Your task to perform on an android device: Clear the cart on ebay.com. Search for "jbl flip 4" on ebay.com, select the first entry, and add it to the cart. Image 0: 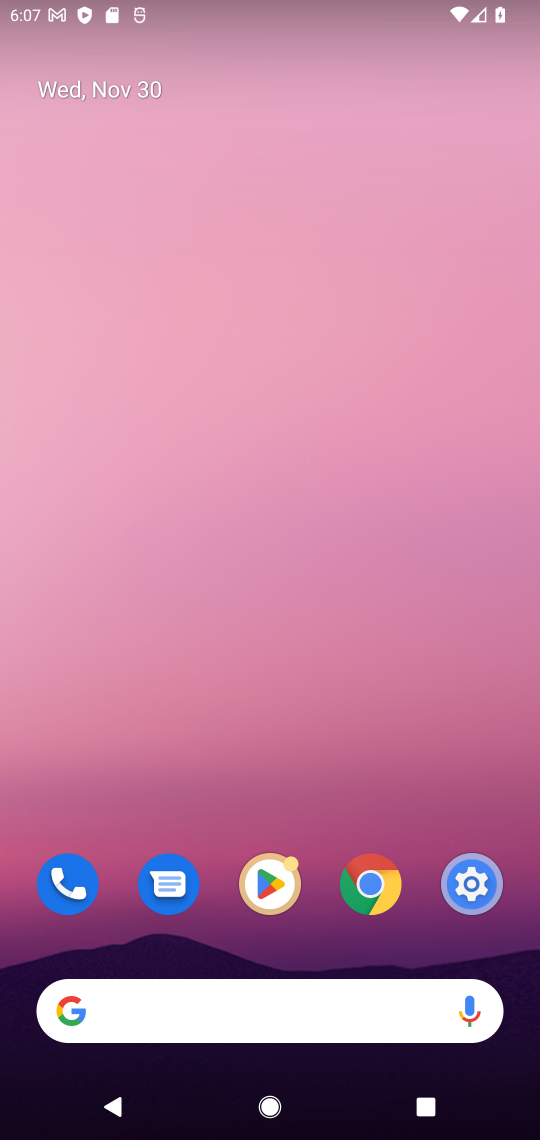
Step 0: click (377, 886)
Your task to perform on an android device: Clear the cart on ebay.com. Search for "jbl flip 4" on ebay.com, select the first entry, and add it to the cart. Image 1: 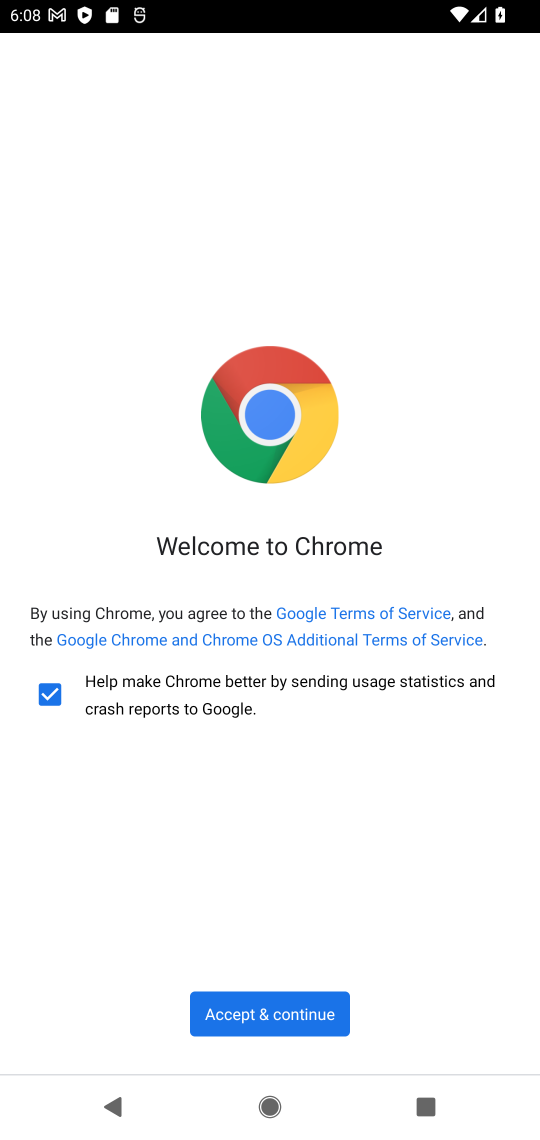
Step 1: click (266, 1020)
Your task to perform on an android device: Clear the cart on ebay.com. Search for "jbl flip 4" on ebay.com, select the first entry, and add it to the cart. Image 2: 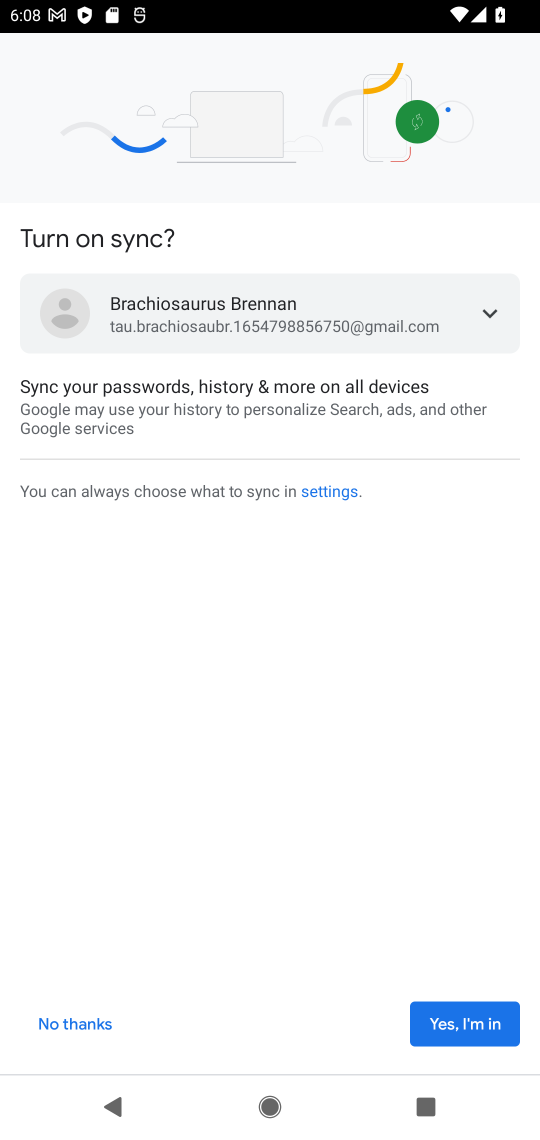
Step 2: click (66, 1025)
Your task to perform on an android device: Clear the cart on ebay.com. Search for "jbl flip 4" on ebay.com, select the first entry, and add it to the cart. Image 3: 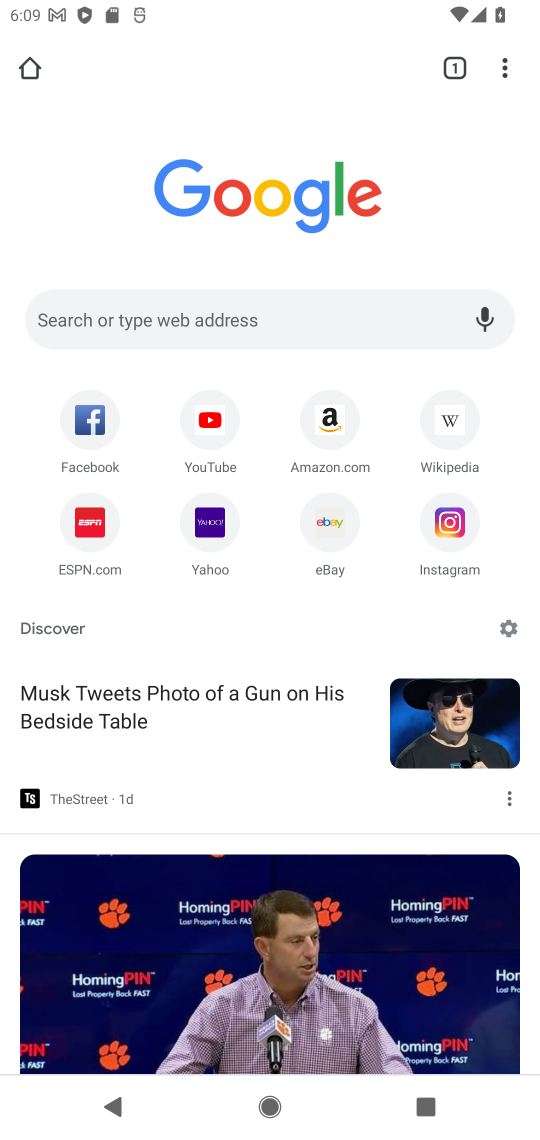
Step 3: click (328, 534)
Your task to perform on an android device: Clear the cart on ebay.com. Search for "jbl flip 4" on ebay.com, select the first entry, and add it to the cart. Image 4: 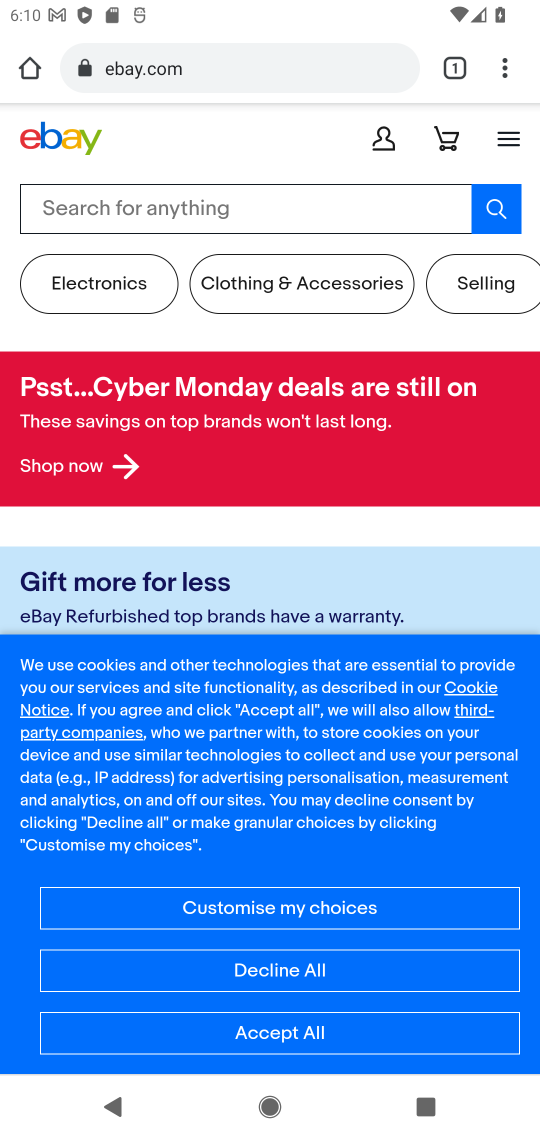
Step 4: click (451, 144)
Your task to perform on an android device: Clear the cart on ebay.com. Search for "jbl flip 4" on ebay.com, select the first entry, and add it to the cart. Image 5: 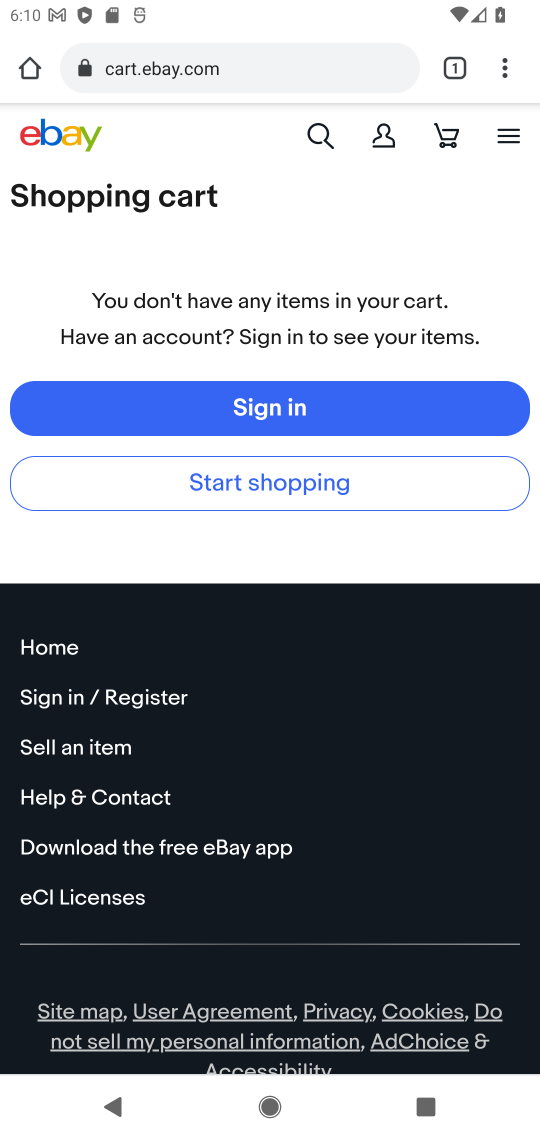
Step 5: click (323, 136)
Your task to perform on an android device: Clear the cart on ebay.com. Search for "jbl flip 4" on ebay.com, select the first entry, and add it to the cart. Image 6: 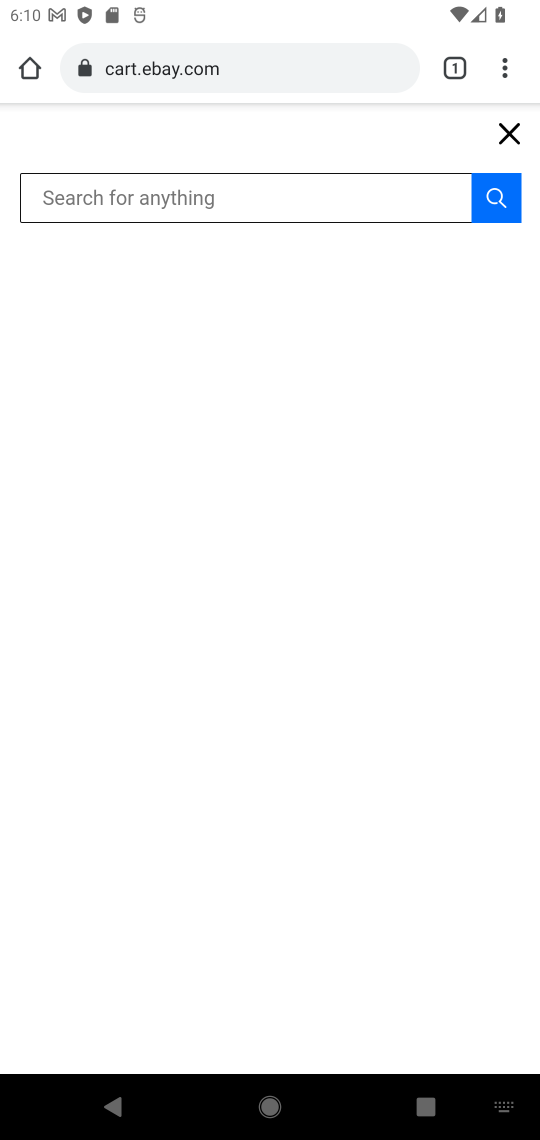
Step 6: type "jbl flip 4"
Your task to perform on an android device: Clear the cart on ebay.com. Search for "jbl flip 4" on ebay.com, select the first entry, and add it to the cart. Image 7: 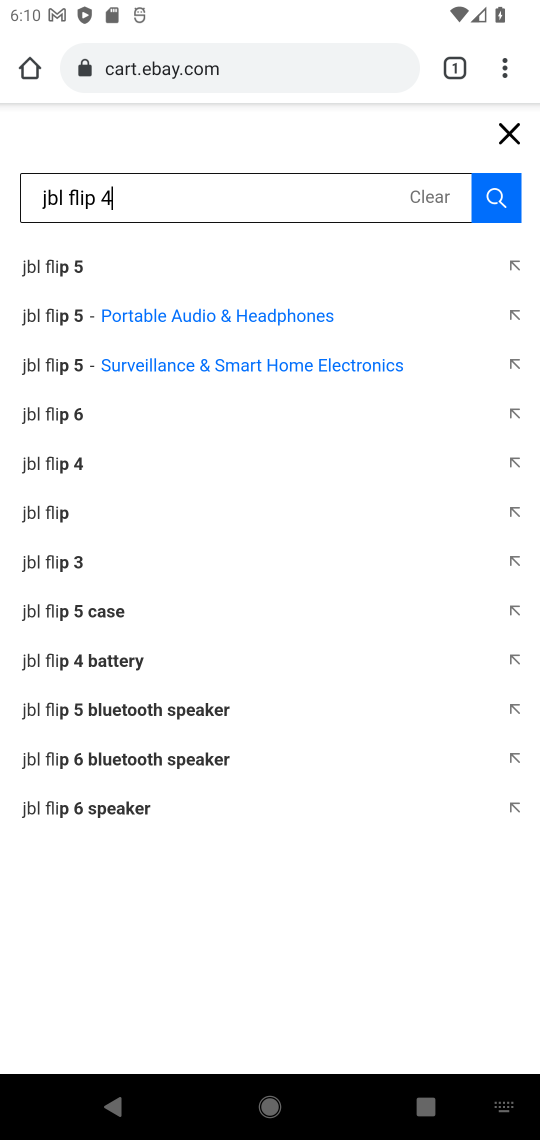
Step 7: click (37, 467)
Your task to perform on an android device: Clear the cart on ebay.com. Search for "jbl flip 4" on ebay.com, select the first entry, and add it to the cart. Image 8: 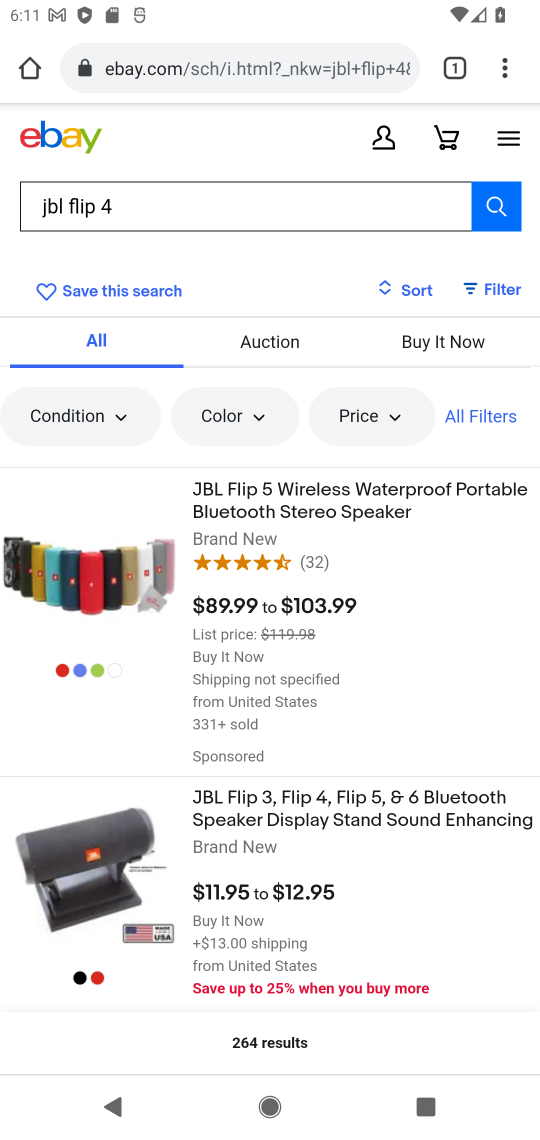
Step 8: task complete